Your task to perform on an android device: Search for Mexican restaurants on Maps Image 0: 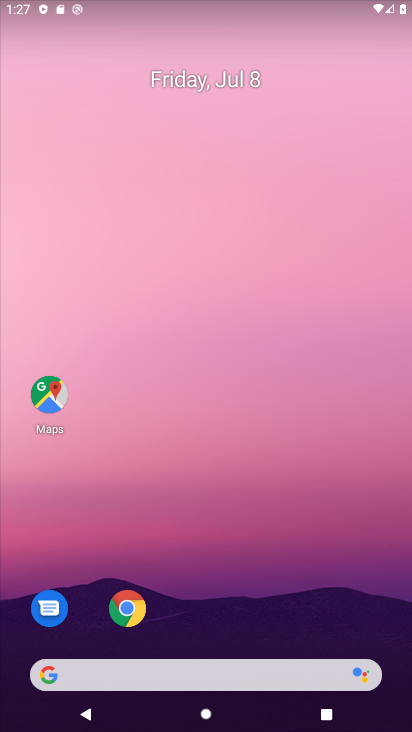
Step 0: drag from (223, 627) to (324, 115)
Your task to perform on an android device: Search for Mexican restaurants on Maps Image 1: 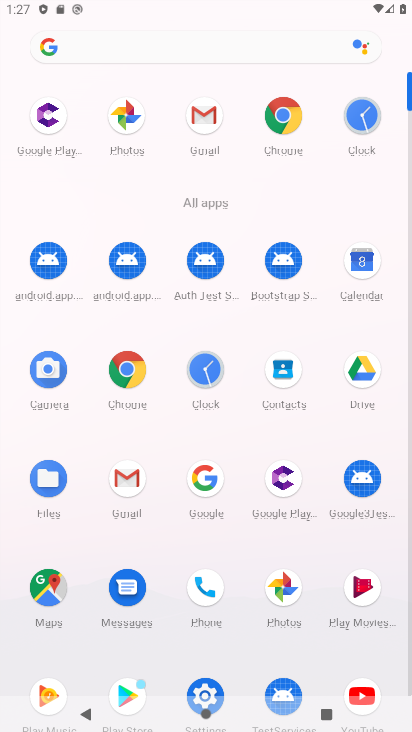
Step 1: click (51, 580)
Your task to perform on an android device: Search for Mexican restaurants on Maps Image 2: 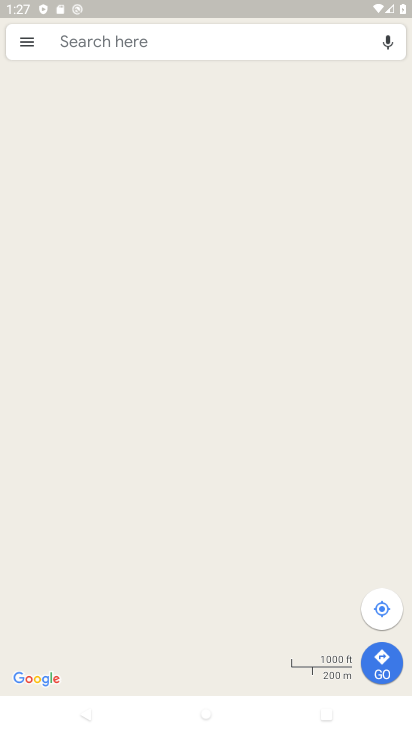
Step 2: click (127, 46)
Your task to perform on an android device: Search for Mexican restaurants on Maps Image 3: 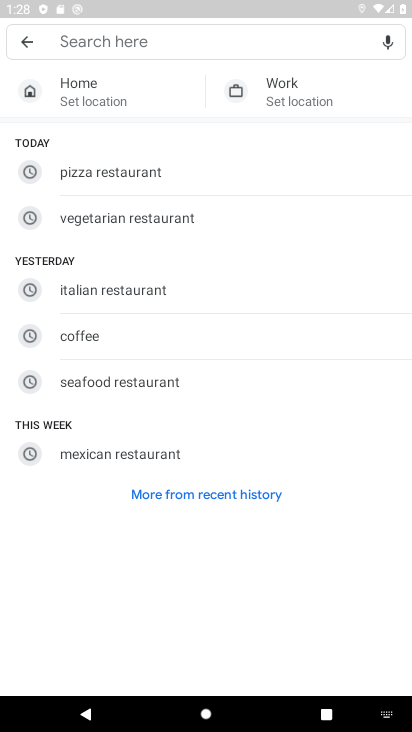
Step 3: type "Mexican restaurants"
Your task to perform on an android device: Search for Mexican restaurants on Maps Image 4: 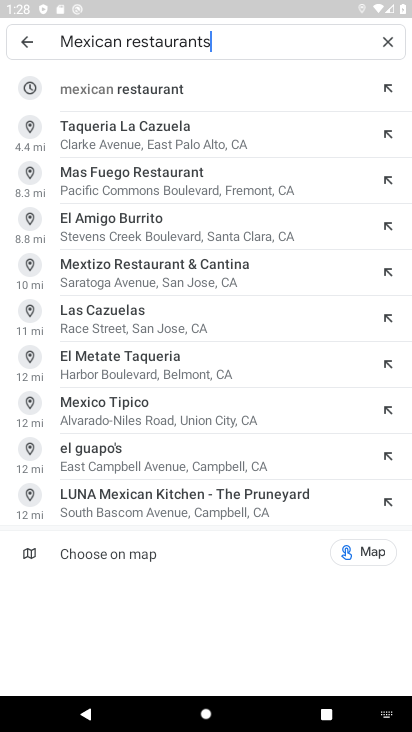
Step 4: click (147, 94)
Your task to perform on an android device: Search for Mexican restaurants on Maps Image 5: 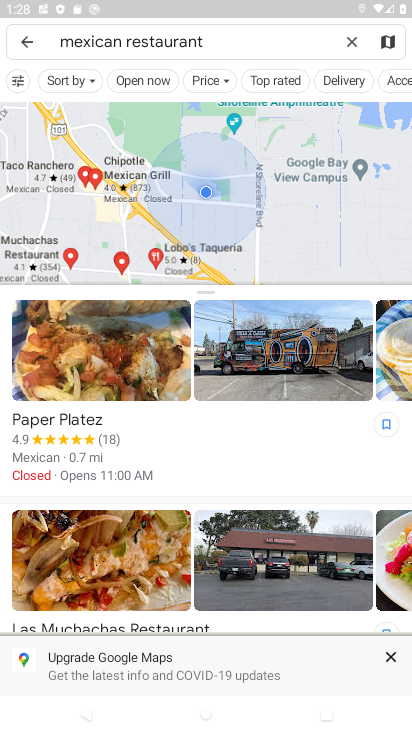
Step 5: task complete